Your task to perform on an android device: turn on airplane mode Image 0: 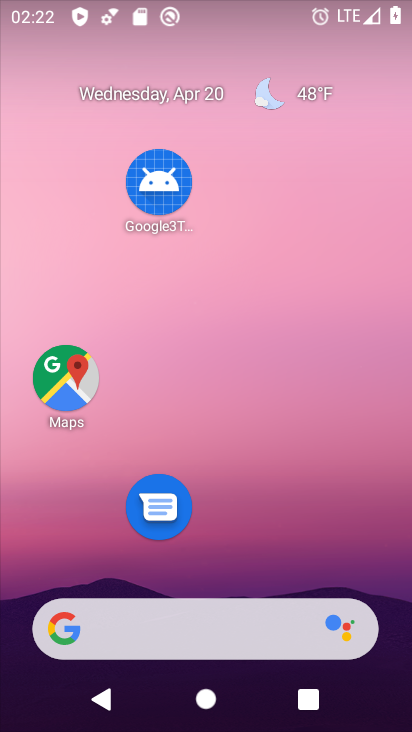
Step 0: drag from (256, 487) to (211, 96)
Your task to perform on an android device: turn on airplane mode Image 1: 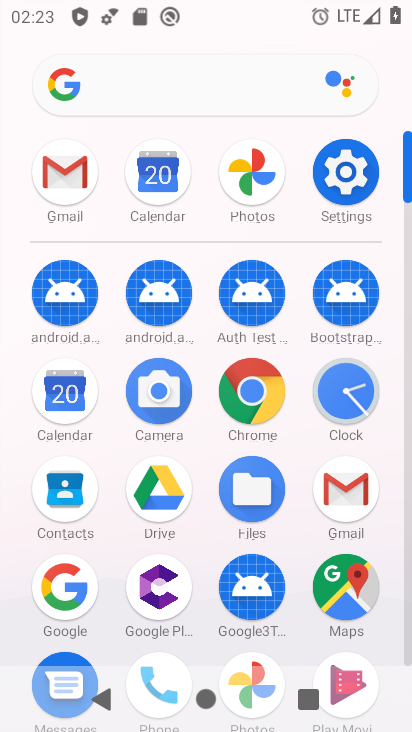
Step 1: click (334, 174)
Your task to perform on an android device: turn on airplane mode Image 2: 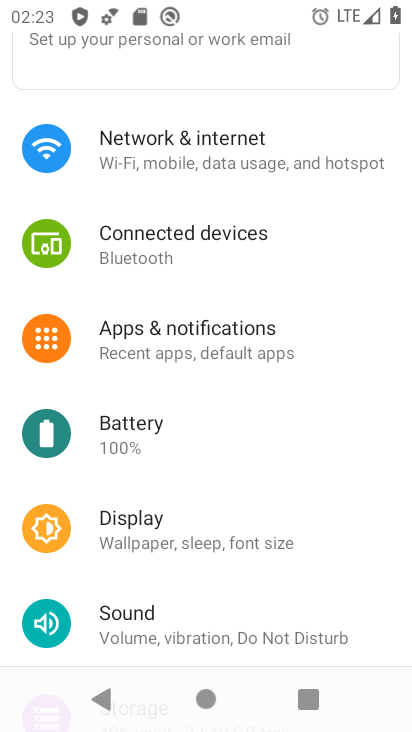
Step 2: drag from (161, 211) to (197, 664)
Your task to perform on an android device: turn on airplane mode Image 3: 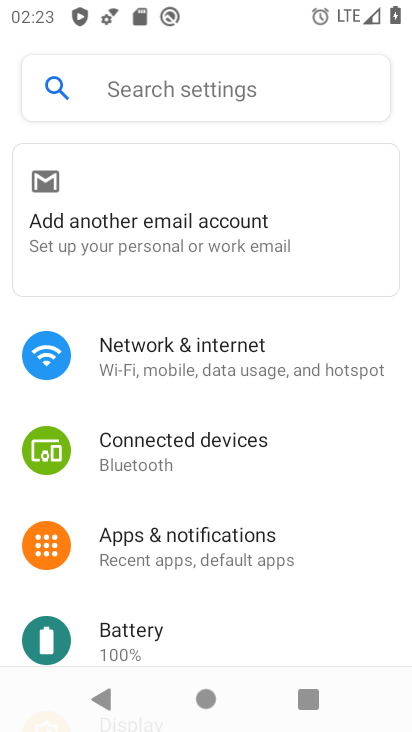
Step 3: click (172, 363)
Your task to perform on an android device: turn on airplane mode Image 4: 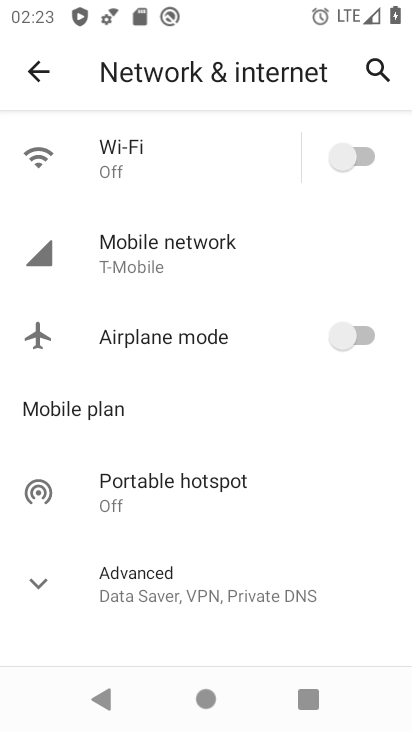
Step 4: click (342, 335)
Your task to perform on an android device: turn on airplane mode Image 5: 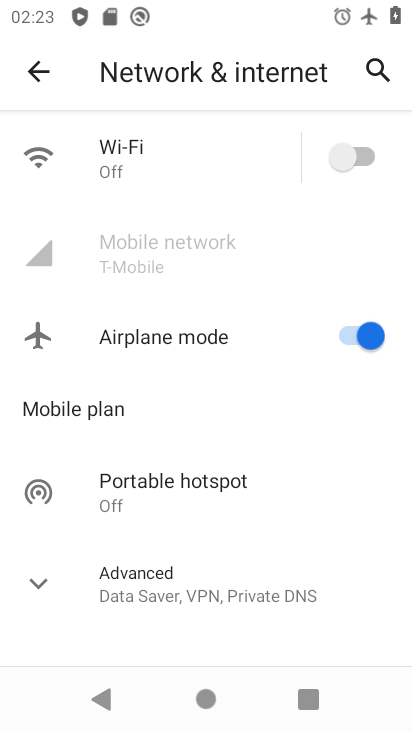
Step 5: task complete